Your task to perform on an android device: see tabs open on other devices in the chrome app Image 0: 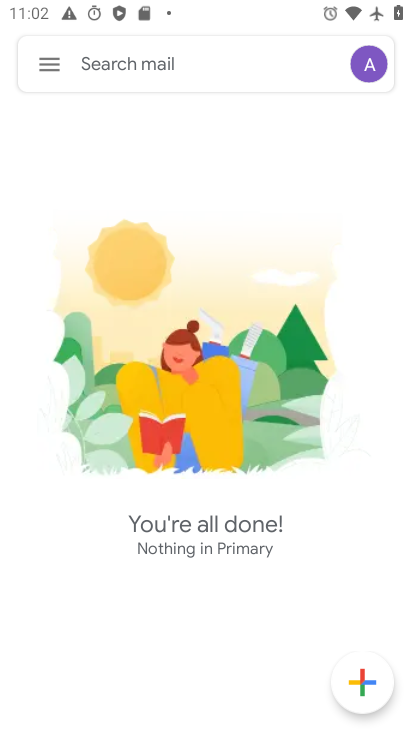
Step 0: press home button
Your task to perform on an android device: see tabs open on other devices in the chrome app Image 1: 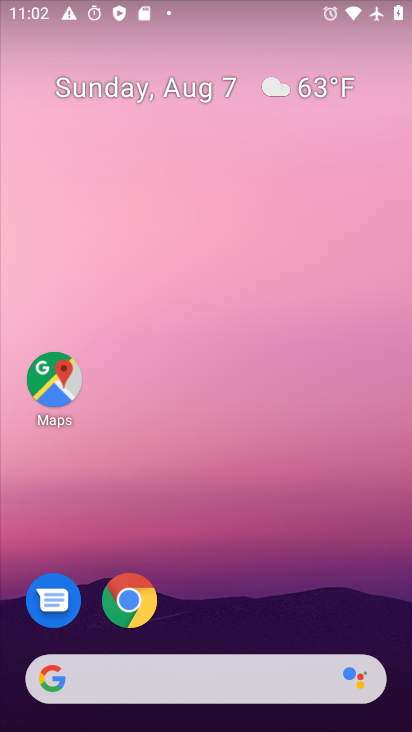
Step 1: drag from (290, 574) to (286, 99)
Your task to perform on an android device: see tabs open on other devices in the chrome app Image 2: 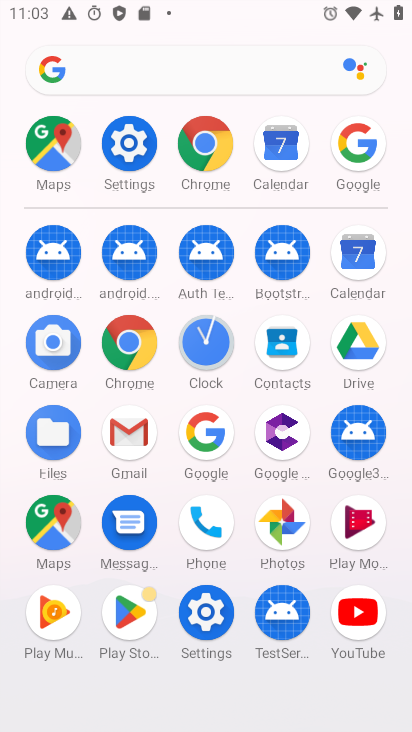
Step 2: click (195, 151)
Your task to perform on an android device: see tabs open on other devices in the chrome app Image 3: 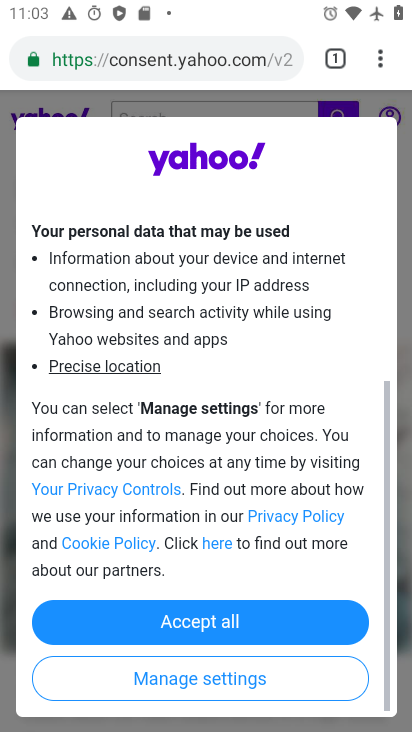
Step 3: drag from (341, 72) to (310, 191)
Your task to perform on an android device: see tabs open on other devices in the chrome app Image 4: 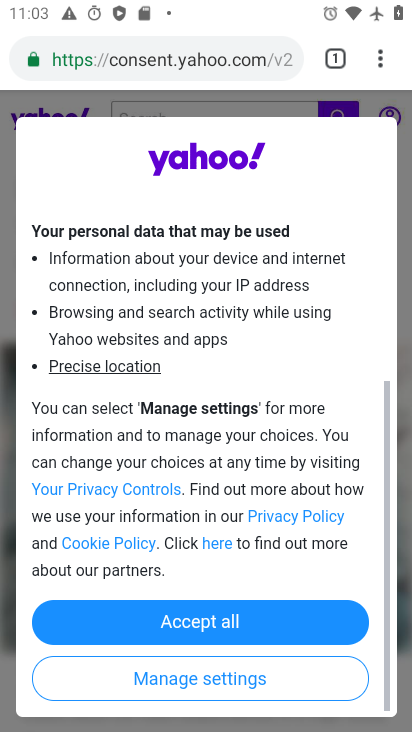
Step 4: click (314, 184)
Your task to perform on an android device: see tabs open on other devices in the chrome app Image 5: 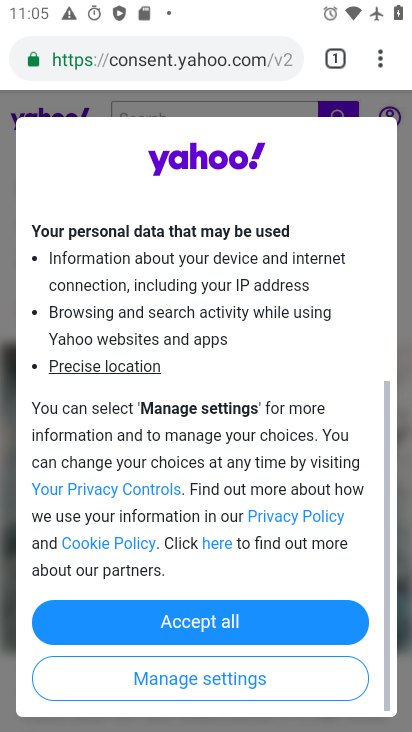
Step 5: task complete